Your task to perform on an android device: toggle javascript in the chrome app Image 0: 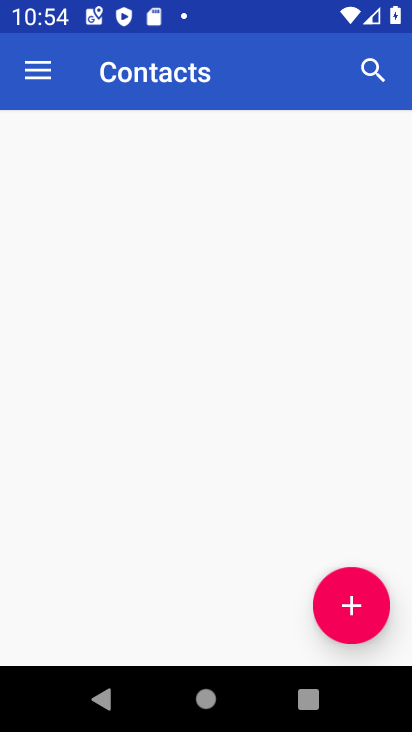
Step 0: drag from (135, 578) to (300, 157)
Your task to perform on an android device: toggle javascript in the chrome app Image 1: 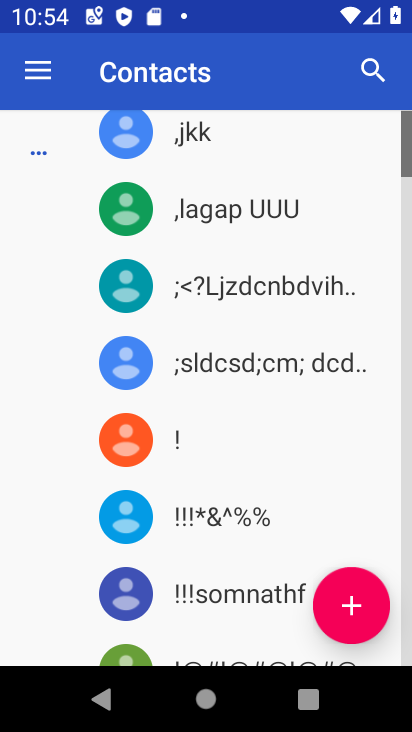
Step 1: press back button
Your task to perform on an android device: toggle javascript in the chrome app Image 2: 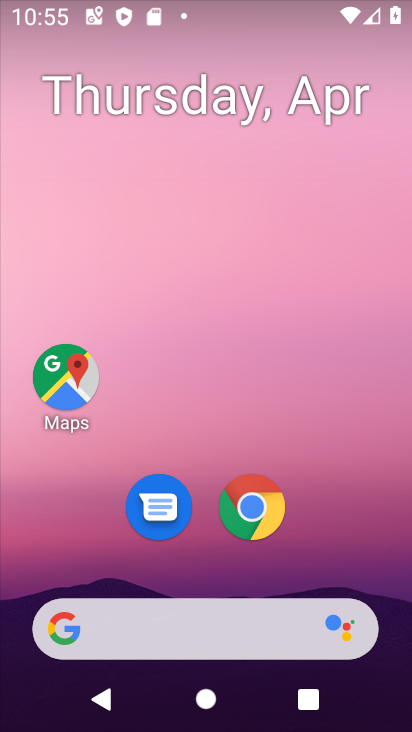
Step 2: drag from (160, 599) to (292, 67)
Your task to perform on an android device: toggle javascript in the chrome app Image 3: 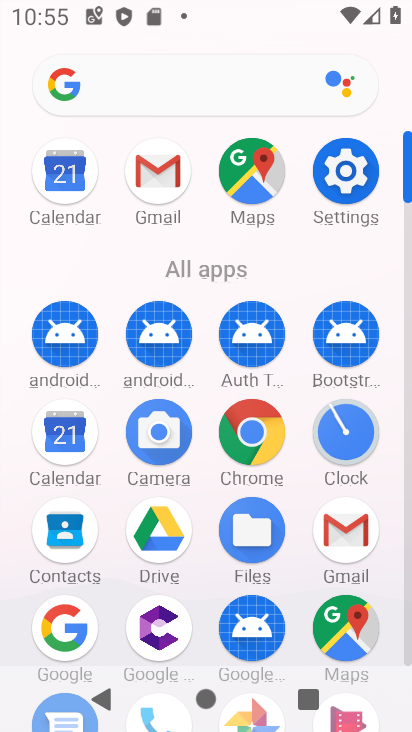
Step 3: click (258, 438)
Your task to perform on an android device: toggle javascript in the chrome app Image 4: 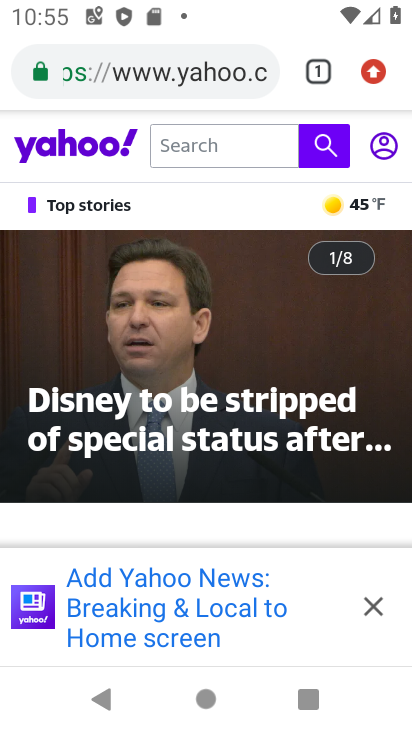
Step 4: drag from (374, 80) to (248, 494)
Your task to perform on an android device: toggle javascript in the chrome app Image 5: 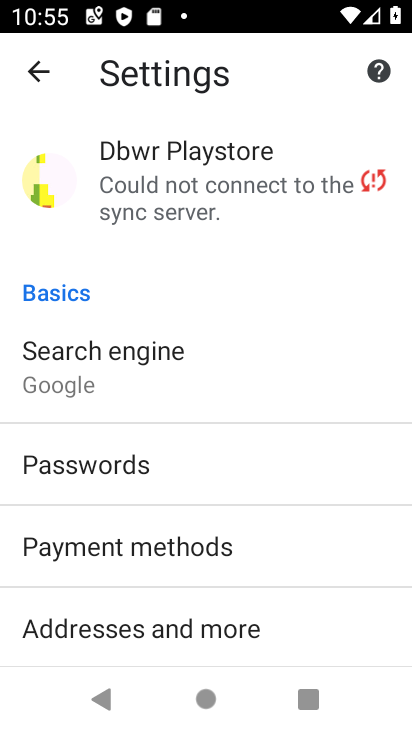
Step 5: drag from (151, 616) to (303, 246)
Your task to perform on an android device: toggle javascript in the chrome app Image 6: 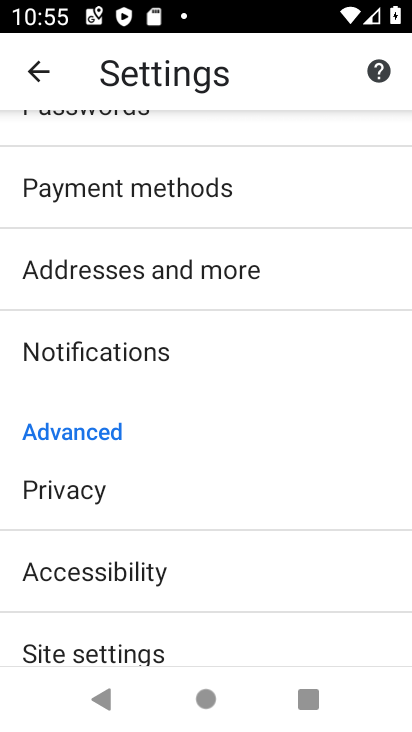
Step 6: drag from (133, 618) to (255, 290)
Your task to perform on an android device: toggle javascript in the chrome app Image 7: 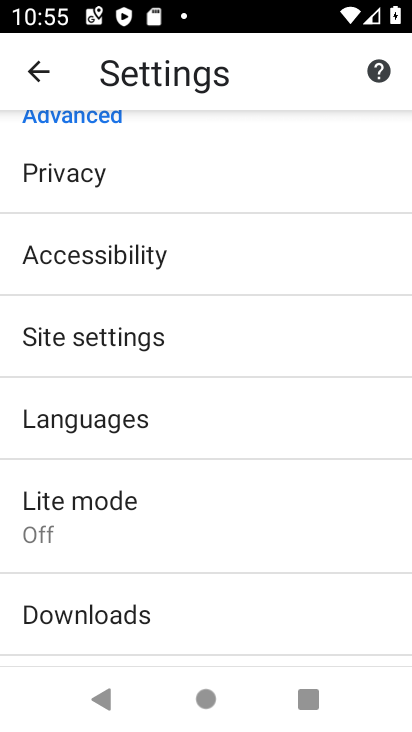
Step 7: click (165, 351)
Your task to perform on an android device: toggle javascript in the chrome app Image 8: 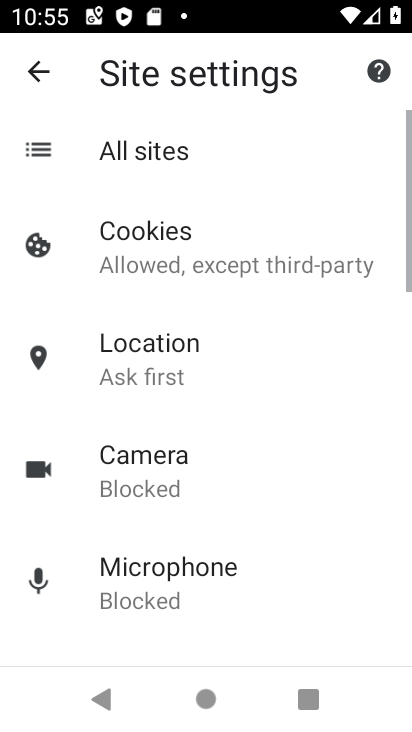
Step 8: drag from (185, 604) to (311, 224)
Your task to perform on an android device: toggle javascript in the chrome app Image 9: 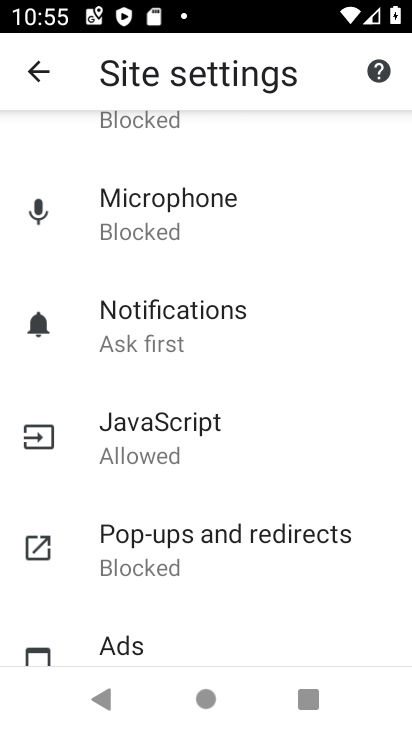
Step 9: drag from (221, 602) to (304, 267)
Your task to perform on an android device: toggle javascript in the chrome app Image 10: 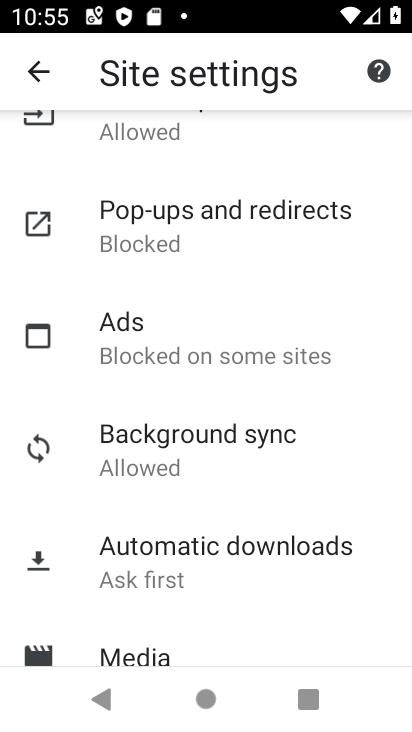
Step 10: drag from (223, 372) to (179, 600)
Your task to perform on an android device: toggle javascript in the chrome app Image 11: 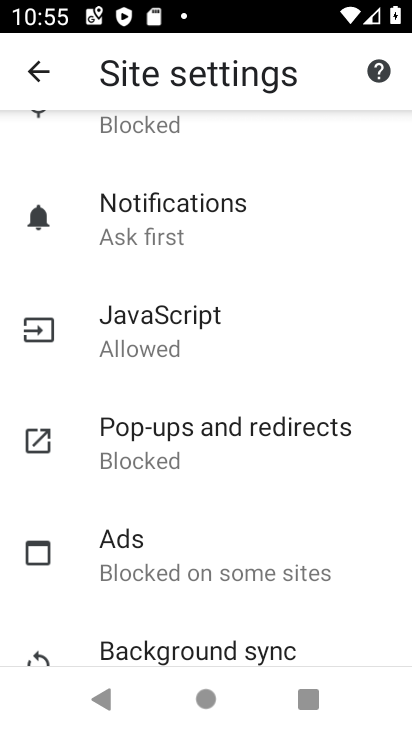
Step 11: click (230, 349)
Your task to perform on an android device: toggle javascript in the chrome app Image 12: 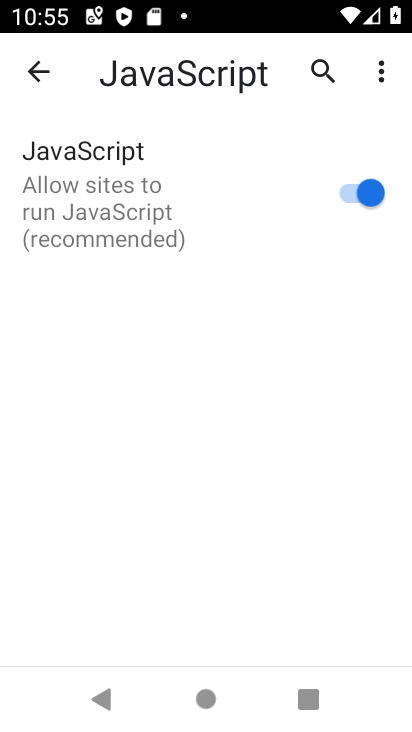
Step 12: click (349, 185)
Your task to perform on an android device: toggle javascript in the chrome app Image 13: 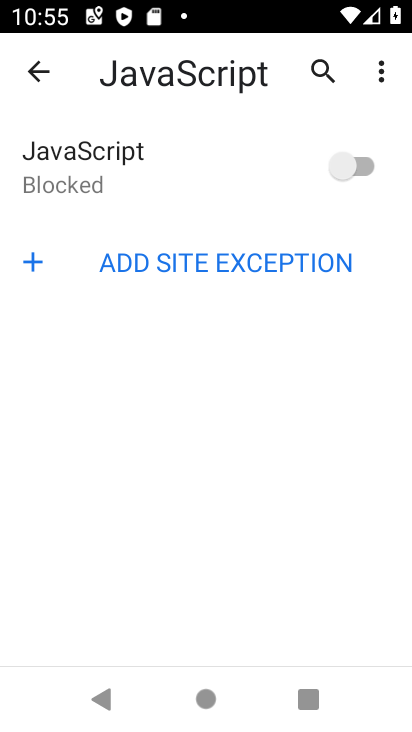
Step 13: task complete